Your task to perform on an android device: Open Chrome and go to settings Image 0: 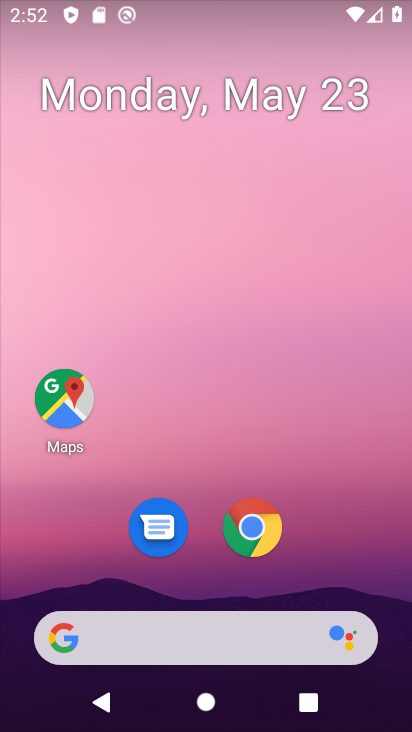
Step 0: press home button
Your task to perform on an android device: Open Chrome and go to settings Image 1: 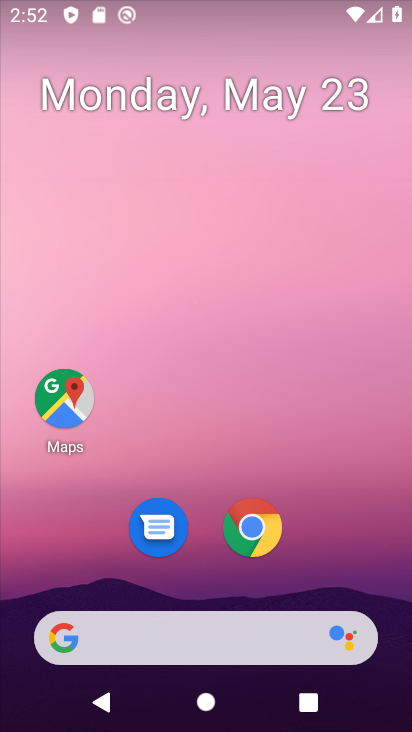
Step 1: click (246, 525)
Your task to perform on an android device: Open Chrome and go to settings Image 2: 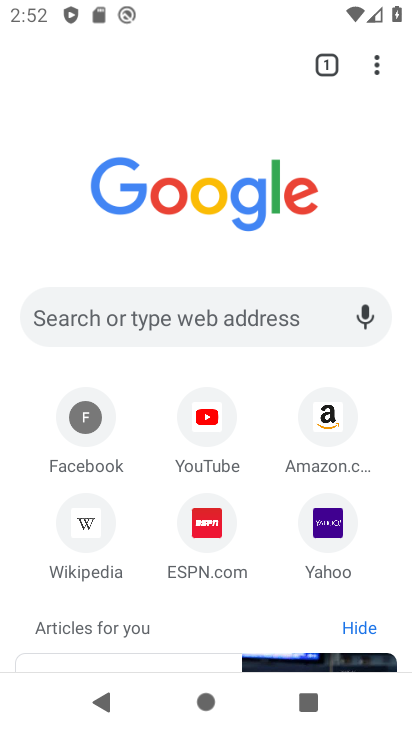
Step 2: click (373, 51)
Your task to perform on an android device: Open Chrome and go to settings Image 3: 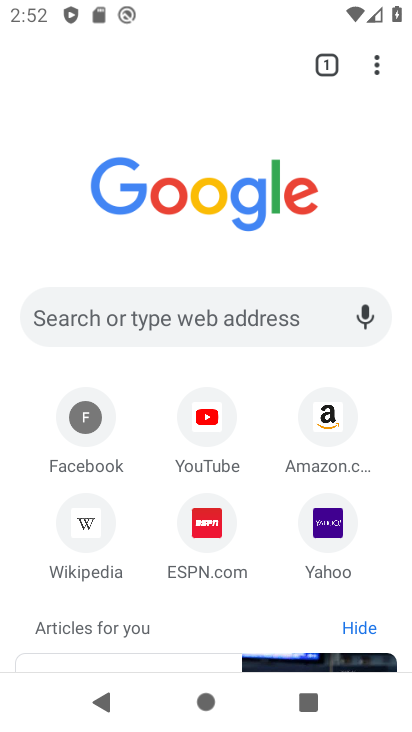
Step 3: click (372, 61)
Your task to perform on an android device: Open Chrome and go to settings Image 4: 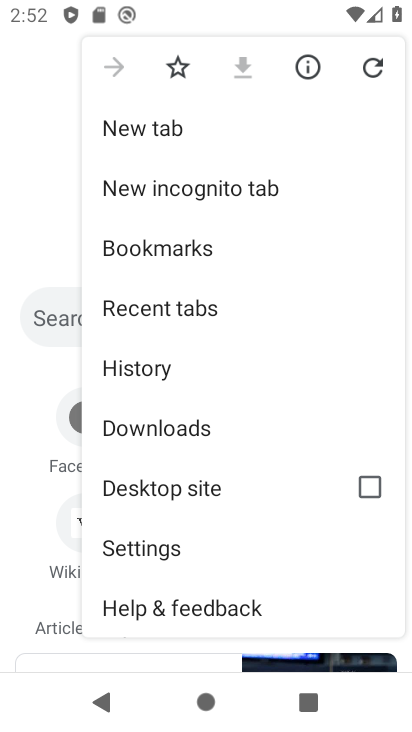
Step 4: click (183, 543)
Your task to perform on an android device: Open Chrome and go to settings Image 5: 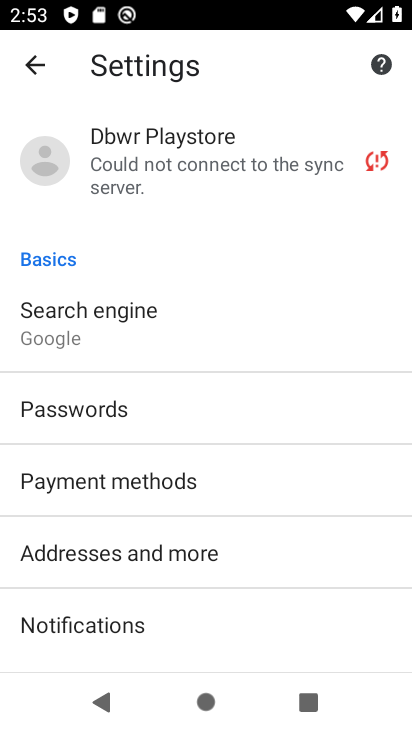
Step 5: task complete